Your task to perform on an android device: Look up the best gaming chair on Best Buy. Image 0: 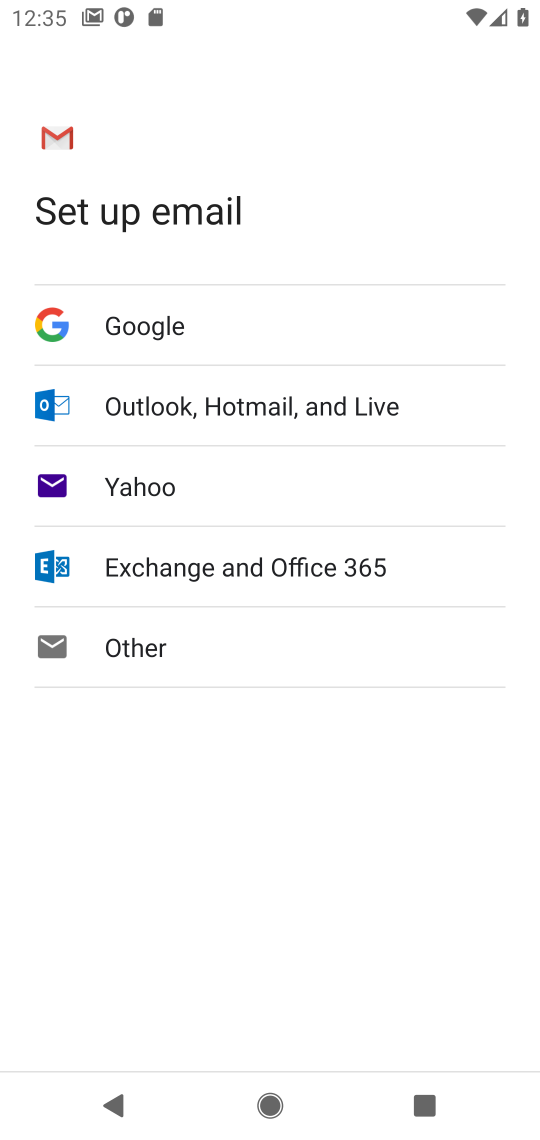
Step 0: click (299, 26)
Your task to perform on an android device: Look up the best gaming chair on Best Buy. Image 1: 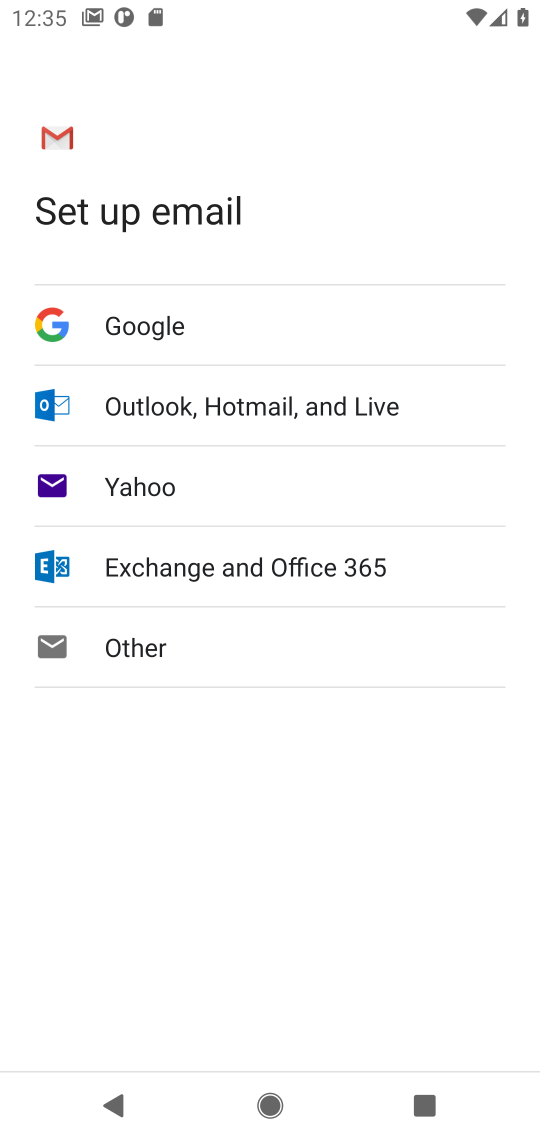
Step 1: press home button
Your task to perform on an android device: Look up the best gaming chair on Best Buy. Image 2: 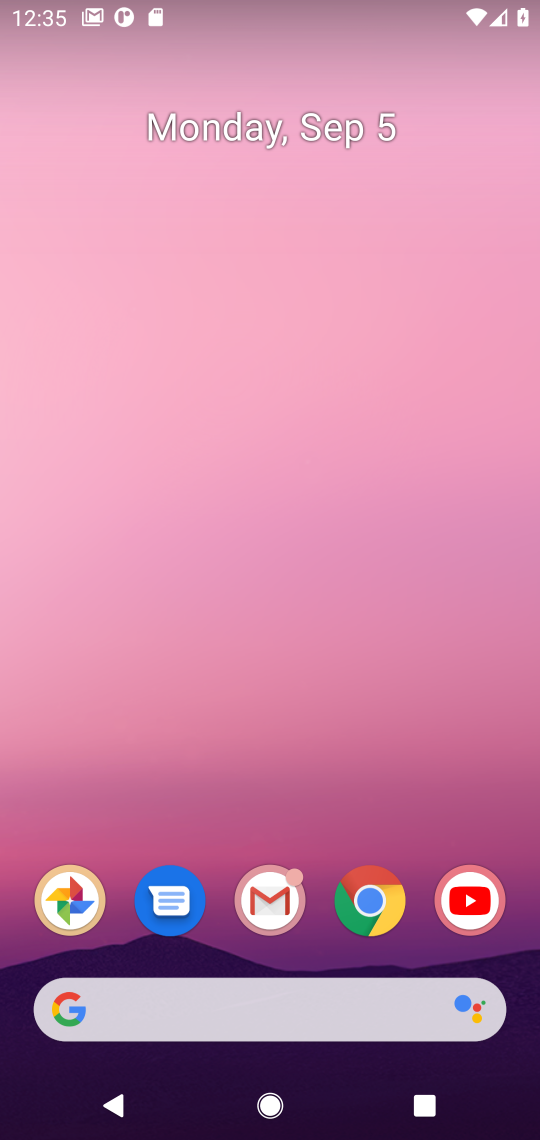
Step 2: drag from (318, 972) to (313, 265)
Your task to perform on an android device: Look up the best gaming chair on Best Buy. Image 3: 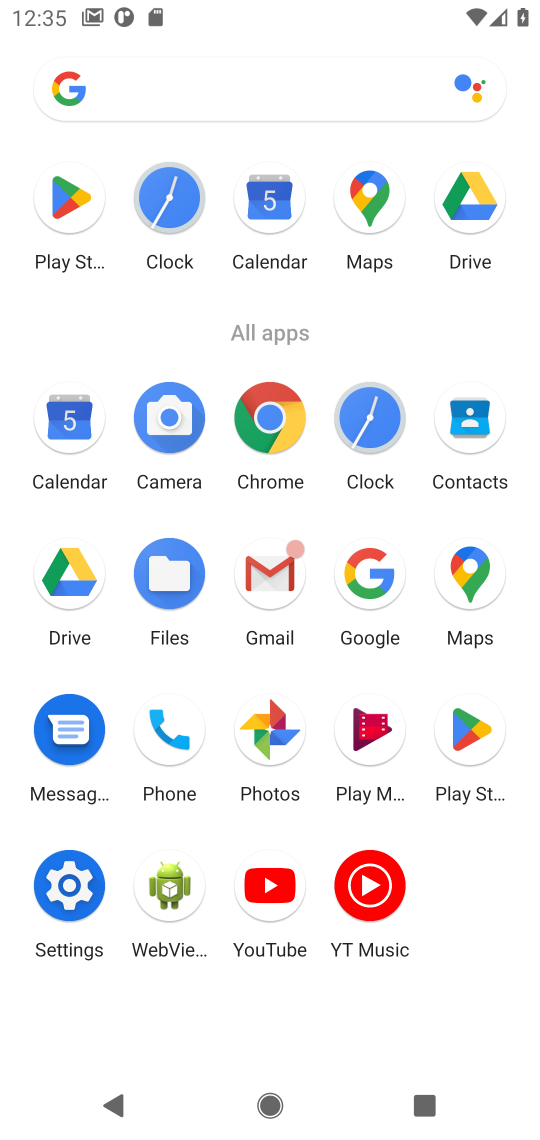
Step 3: click (365, 574)
Your task to perform on an android device: Look up the best gaming chair on Best Buy. Image 4: 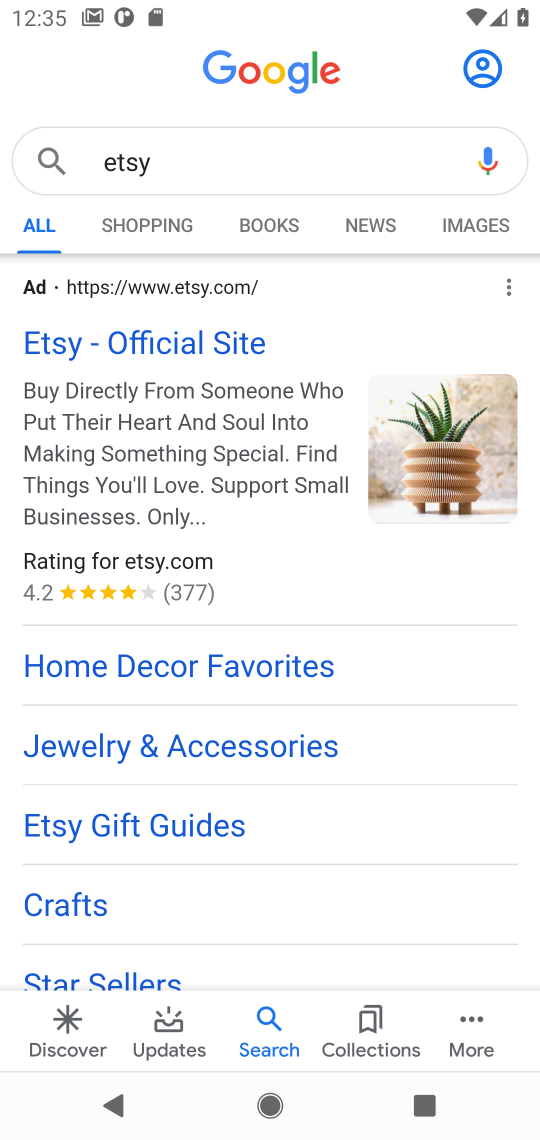
Step 4: click (179, 165)
Your task to perform on an android device: Look up the best gaming chair on Best Buy. Image 5: 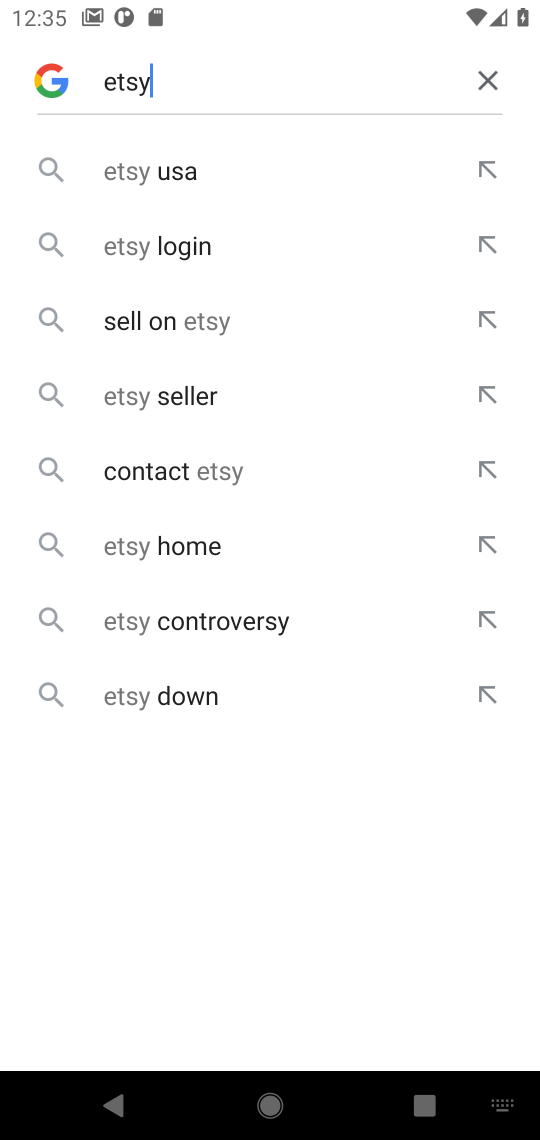
Step 5: click (492, 84)
Your task to perform on an android device: Look up the best gaming chair on Best Buy. Image 6: 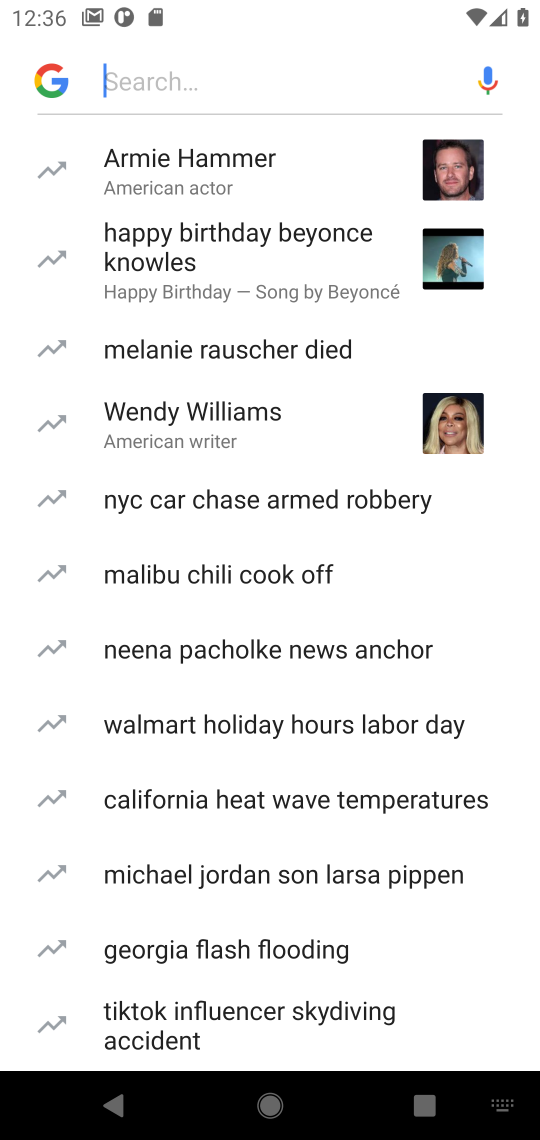
Step 6: type "Best Buy"
Your task to perform on an android device: Look up the best gaming chair on Best Buy. Image 7: 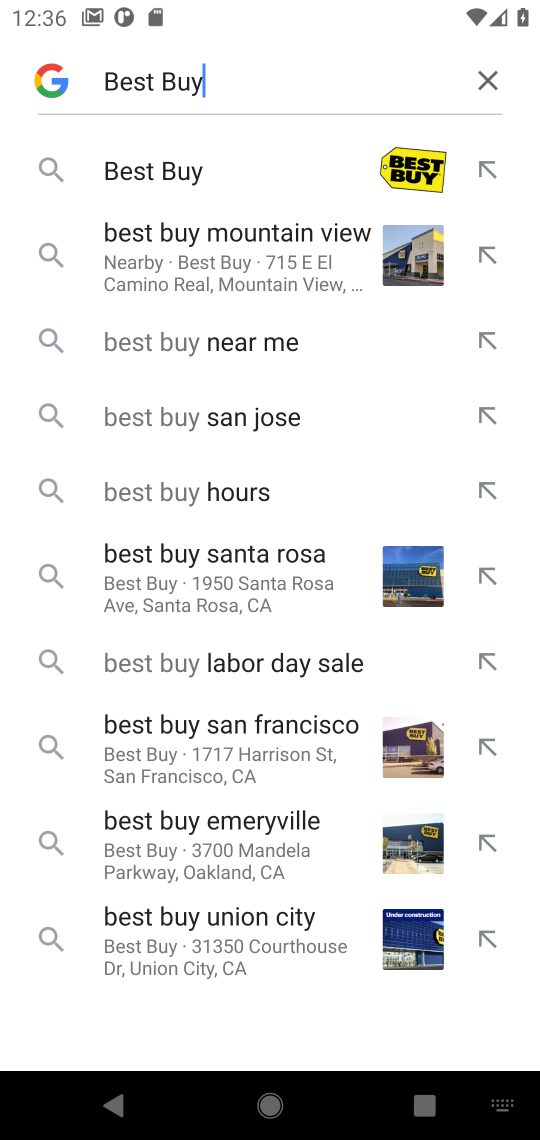
Step 7: click (169, 171)
Your task to perform on an android device: Look up the best gaming chair on Best Buy. Image 8: 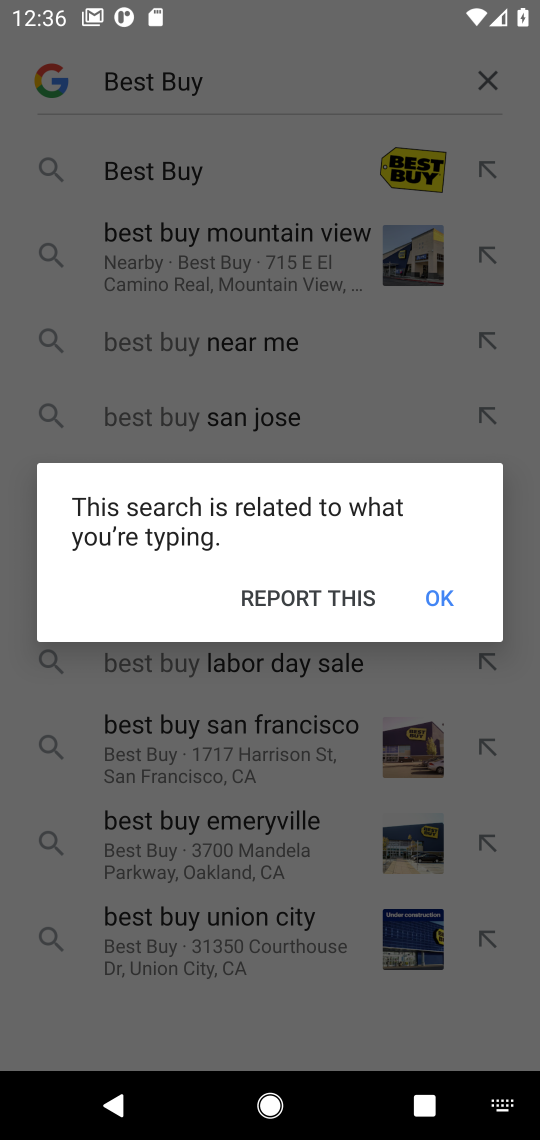
Step 8: click (430, 593)
Your task to perform on an android device: Look up the best gaming chair on Best Buy. Image 9: 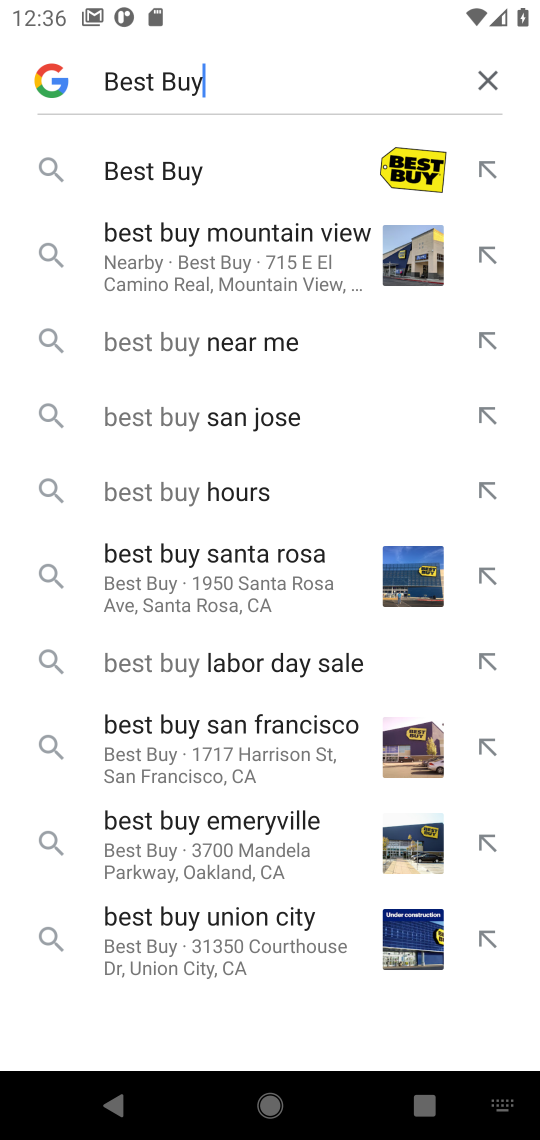
Step 9: click (166, 171)
Your task to perform on an android device: Look up the best gaming chair on Best Buy. Image 10: 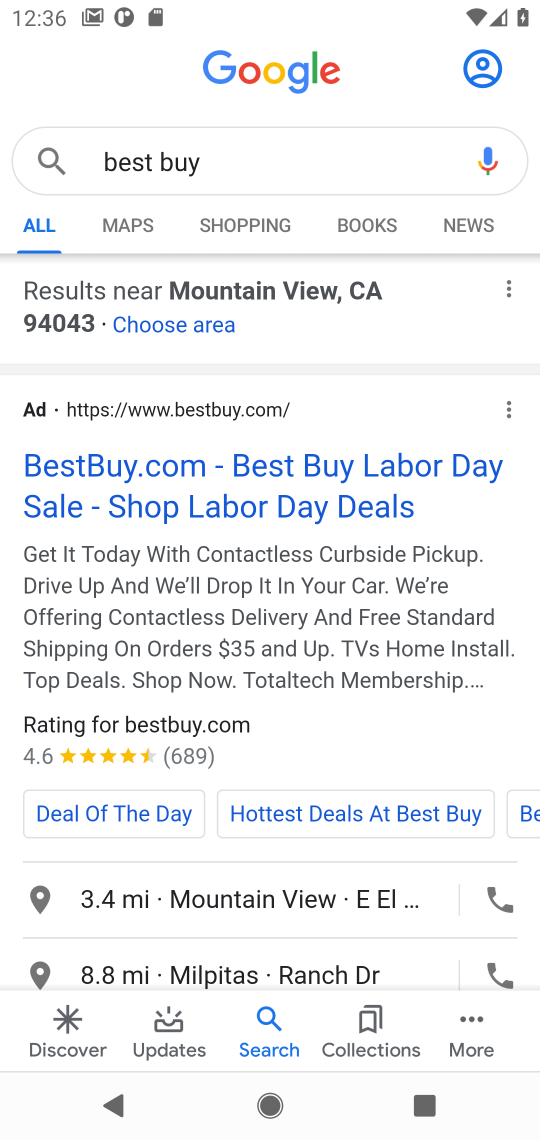
Step 10: click (158, 476)
Your task to perform on an android device: Look up the best gaming chair on Best Buy. Image 11: 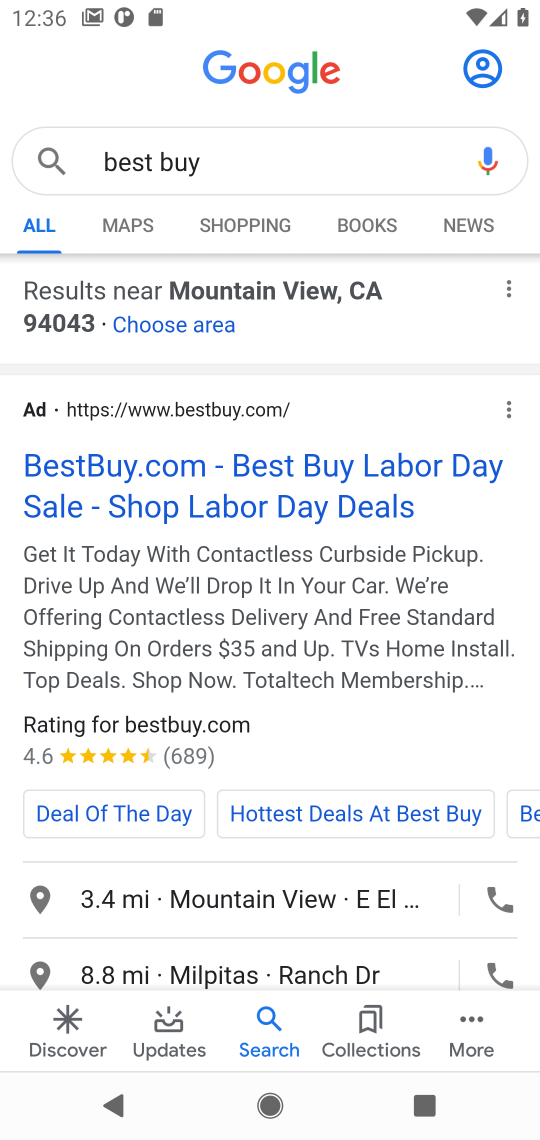
Step 11: click (158, 476)
Your task to perform on an android device: Look up the best gaming chair on Best Buy. Image 12: 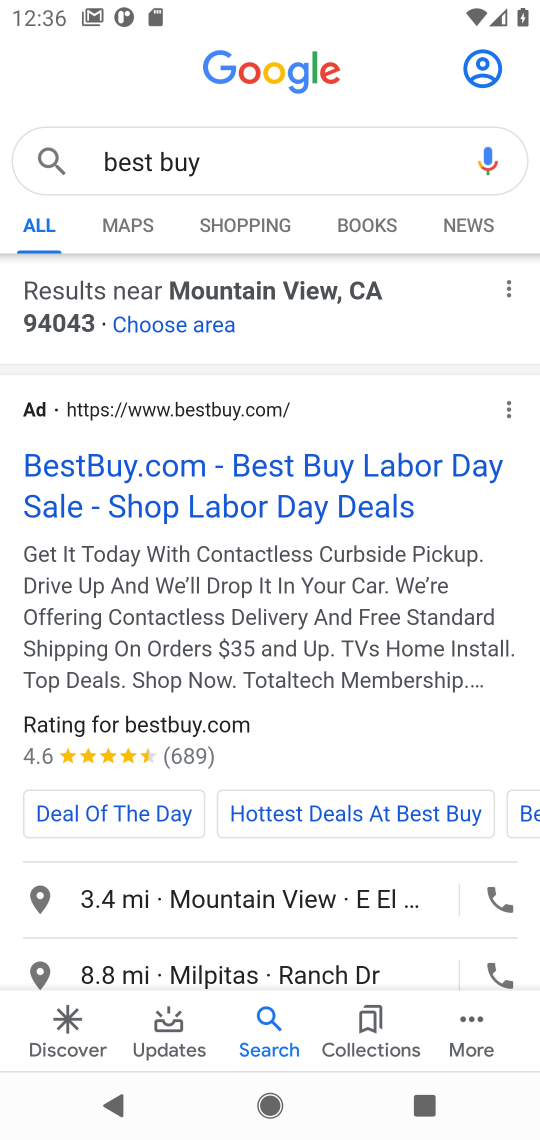
Step 12: click (158, 476)
Your task to perform on an android device: Look up the best gaming chair on Best Buy. Image 13: 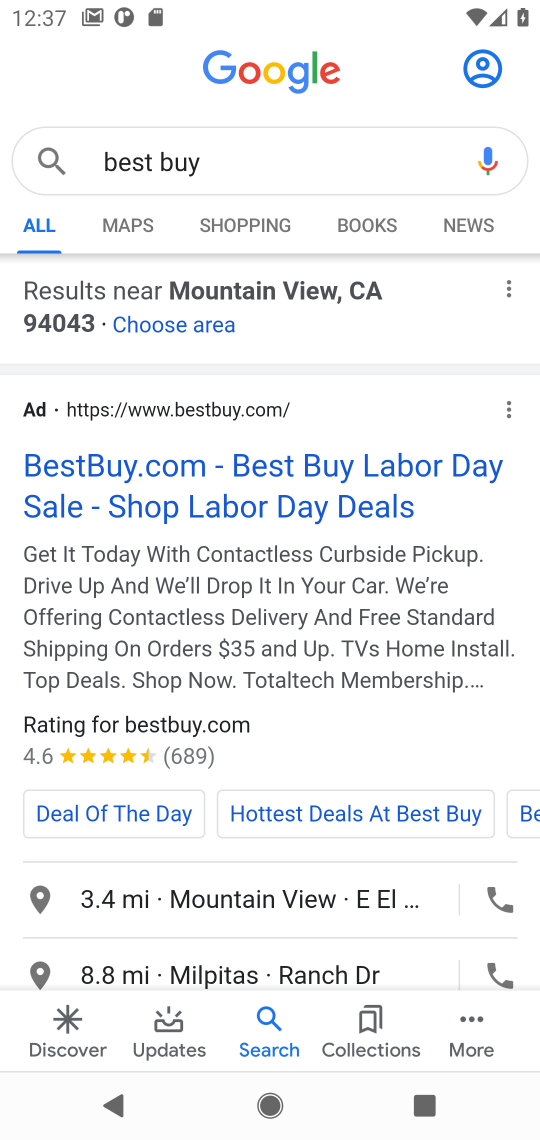
Step 13: click (158, 474)
Your task to perform on an android device: Look up the best gaming chair on Best Buy. Image 14: 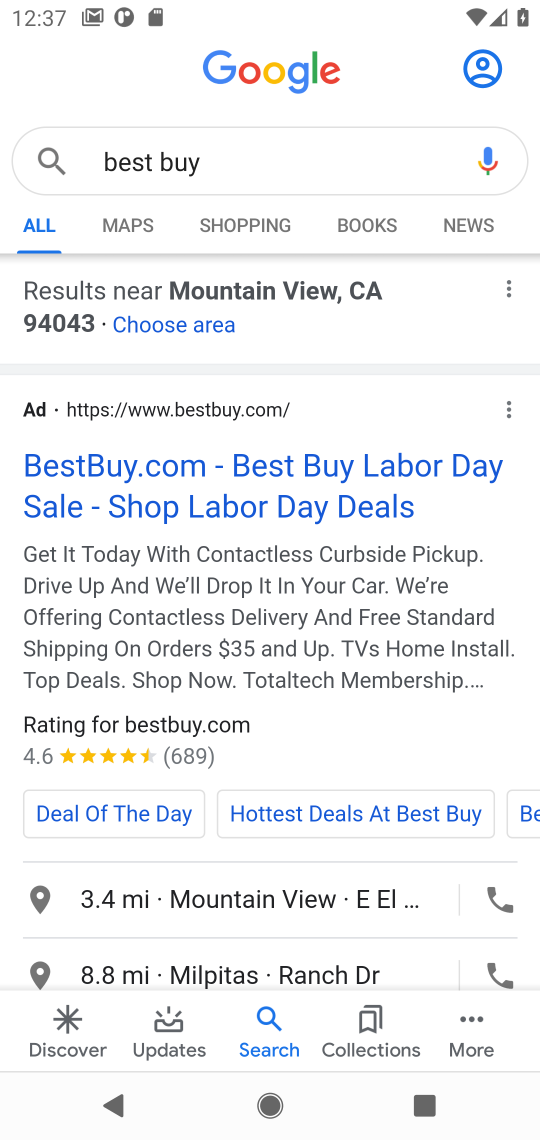
Step 14: click (285, 508)
Your task to perform on an android device: Look up the best gaming chair on Best Buy. Image 15: 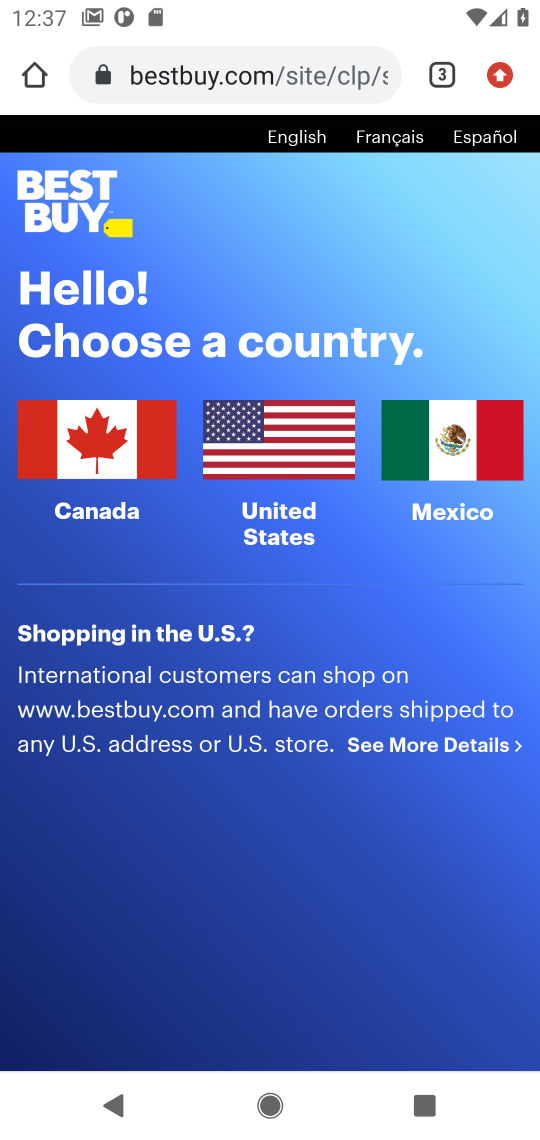
Step 15: click (267, 429)
Your task to perform on an android device: Look up the best gaming chair on Best Buy. Image 16: 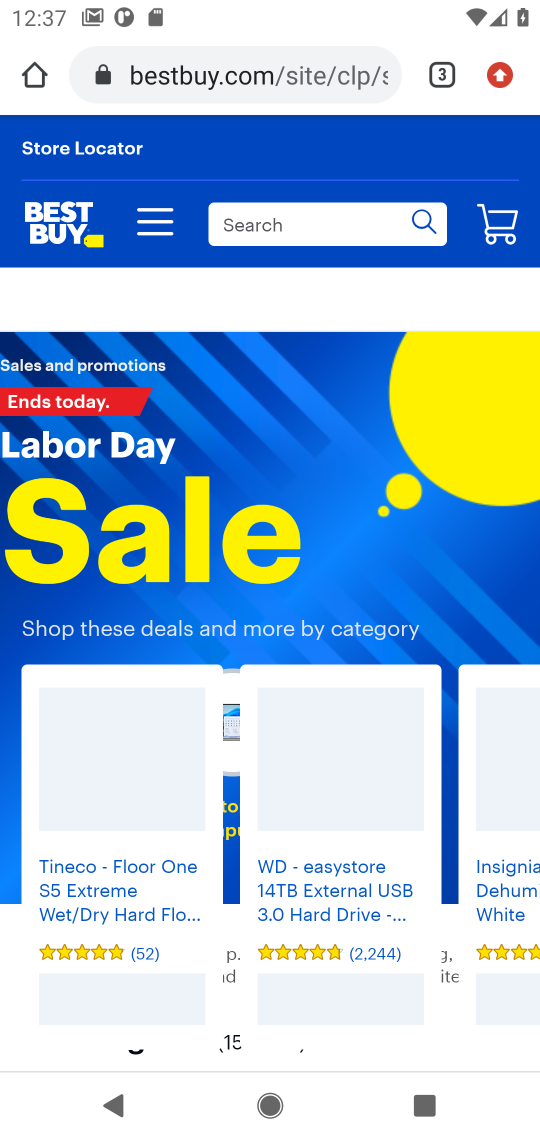
Step 16: click (299, 229)
Your task to perform on an android device: Look up the best gaming chair on Best Buy. Image 17: 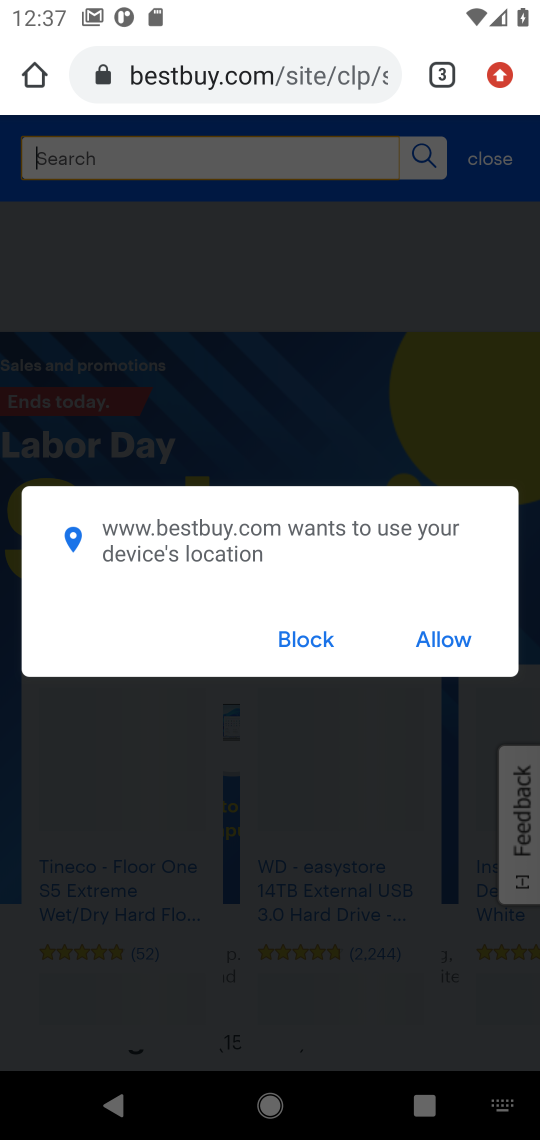
Step 17: click (436, 646)
Your task to perform on an android device: Look up the best gaming chair on Best Buy. Image 18: 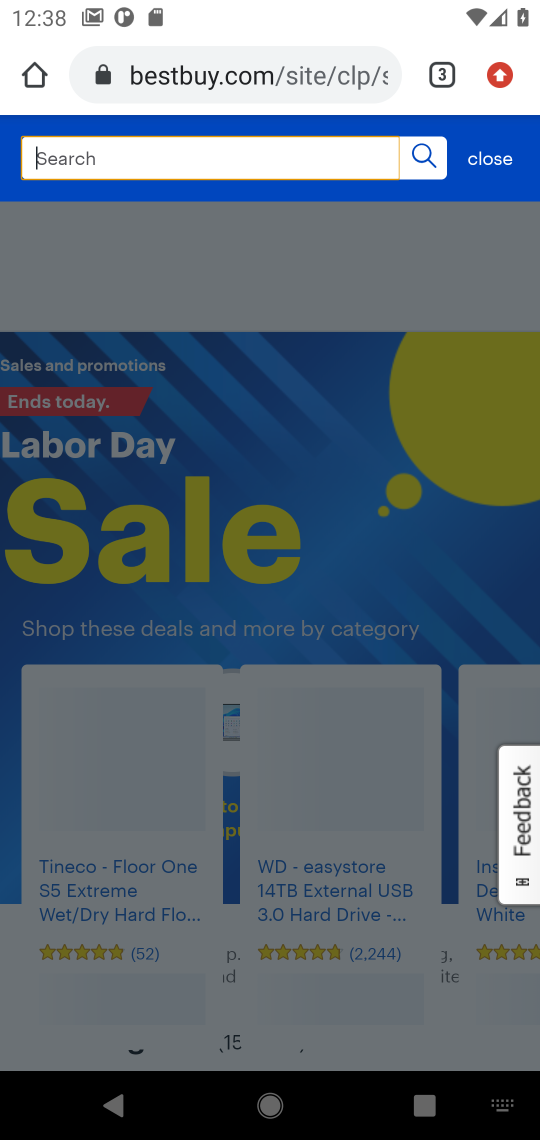
Step 18: type " gaming chair"
Your task to perform on an android device: Look up the best gaming chair on Best Buy. Image 19: 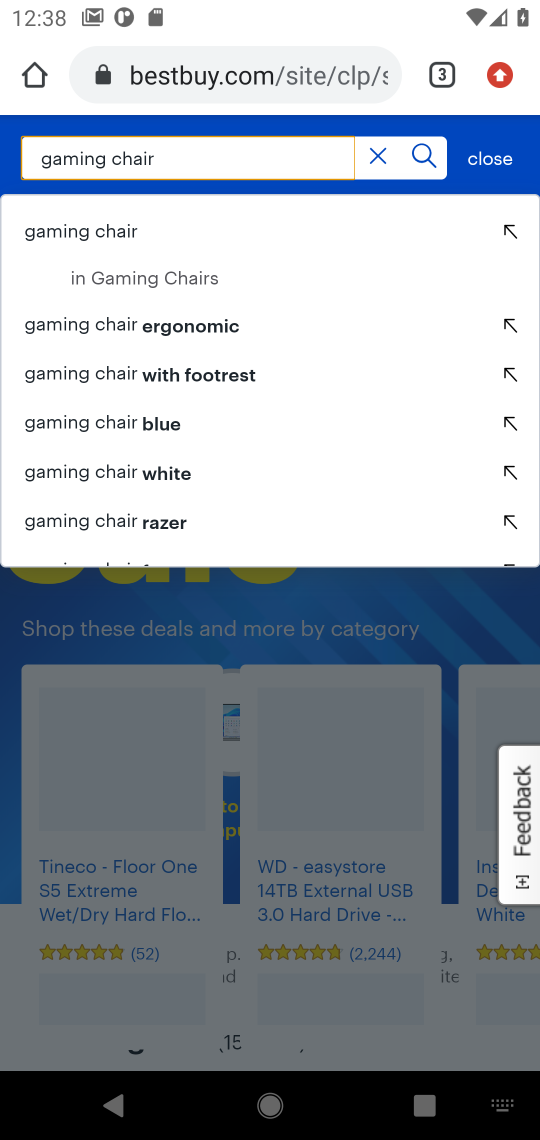
Step 19: click (89, 231)
Your task to perform on an android device: Look up the best gaming chair on Best Buy. Image 20: 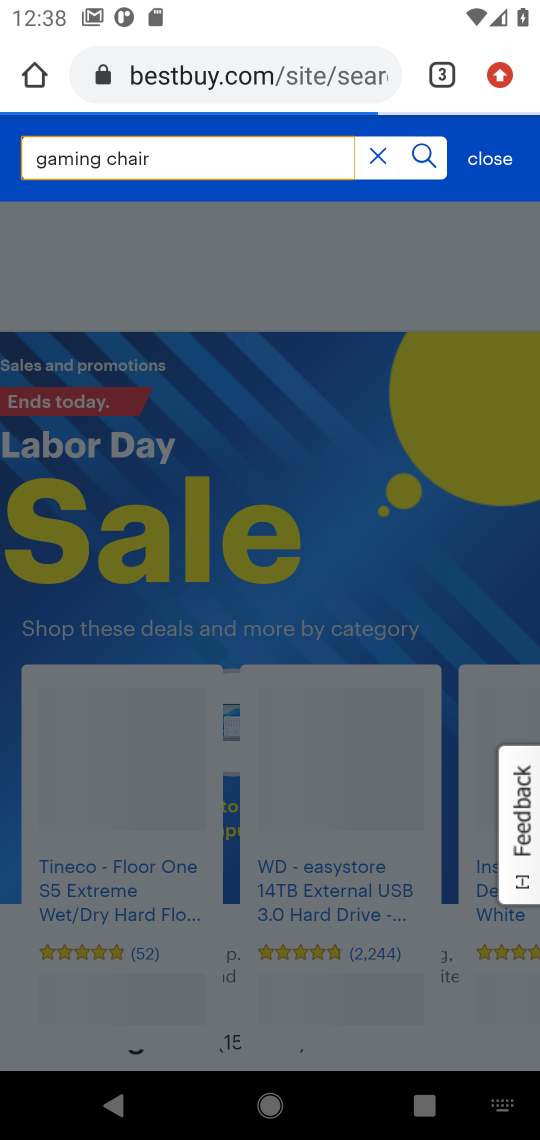
Step 20: click (414, 157)
Your task to perform on an android device: Look up the best gaming chair on Best Buy. Image 21: 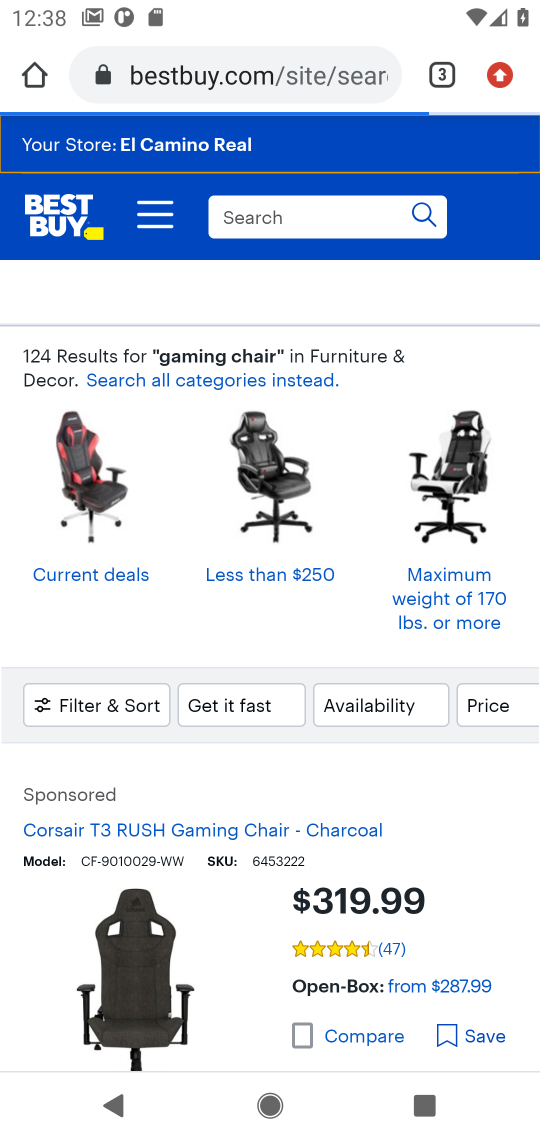
Step 21: task complete